Your task to perform on an android device: toggle notification dots Image 0: 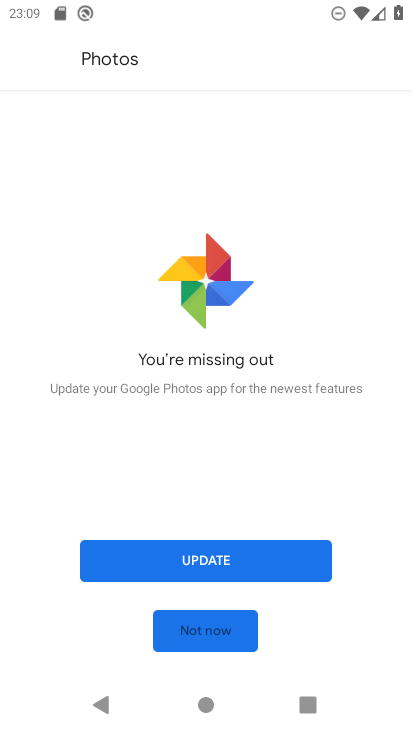
Step 0: press home button
Your task to perform on an android device: toggle notification dots Image 1: 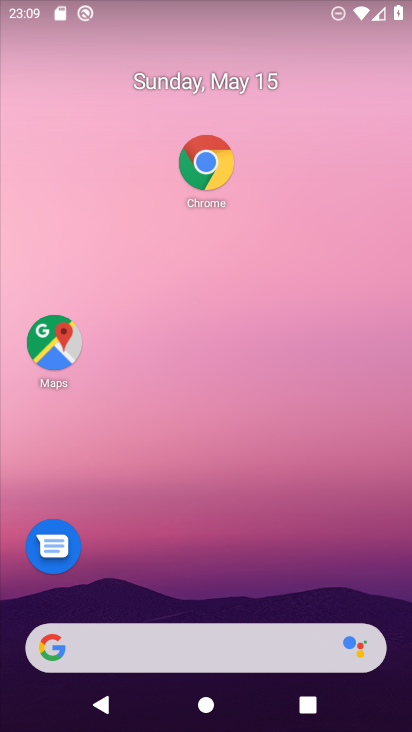
Step 1: drag from (243, 617) to (262, 194)
Your task to perform on an android device: toggle notification dots Image 2: 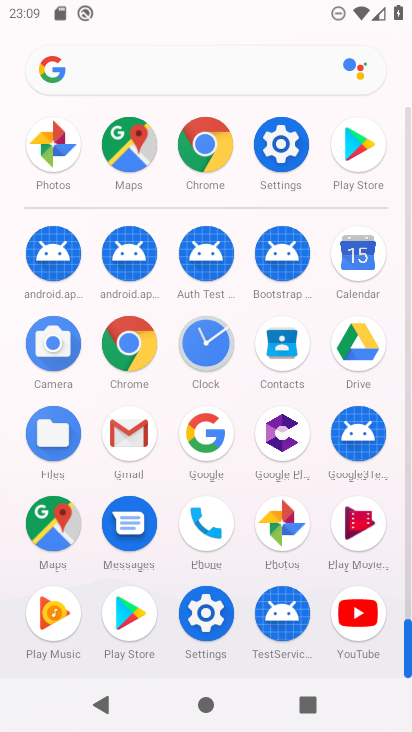
Step 2: click (290, 137)
Your task to perform on an android device: toggle notification dots Image 3: 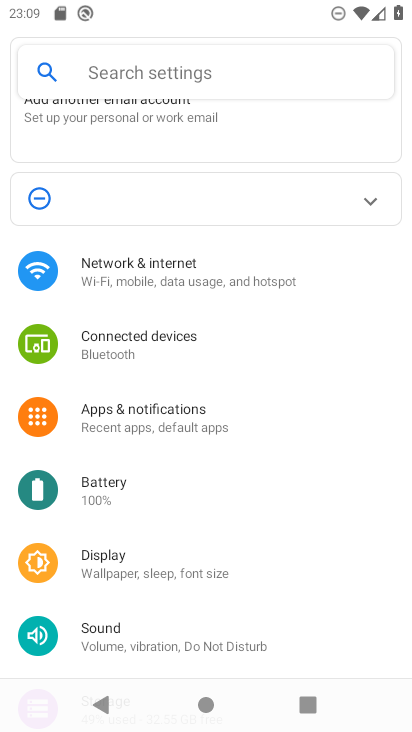
Step 3: click (176, 66)
Your task to perform on an android device: toggle notification dots Image 4: 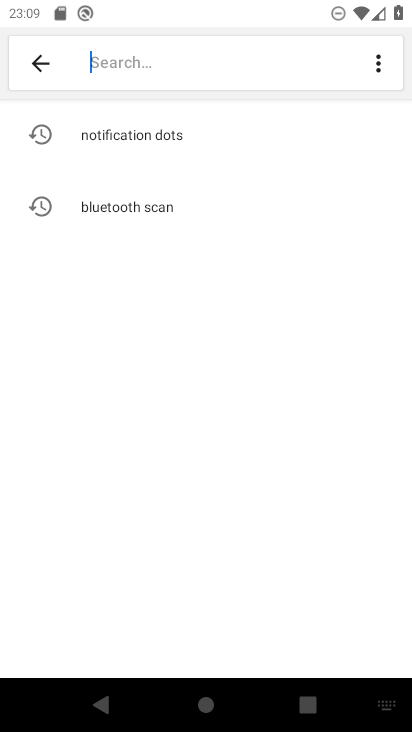
Step 4: click (173, 133)
Your task to perform on an android device: toggle notification dots Image 5: 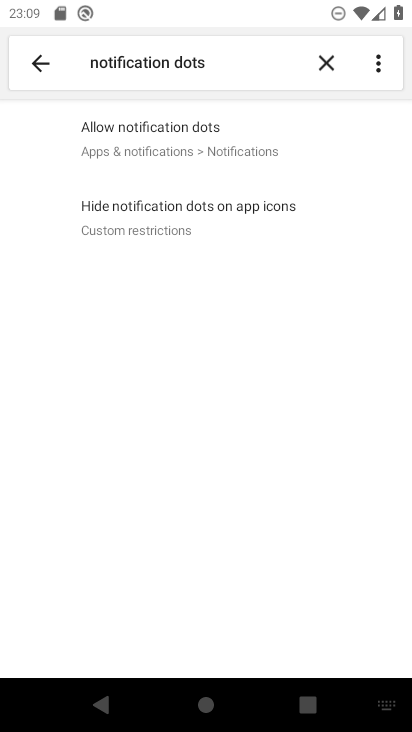
Step 5: click (173, 133)
Your task to perform on an android device: toggle notification dots Image 6: 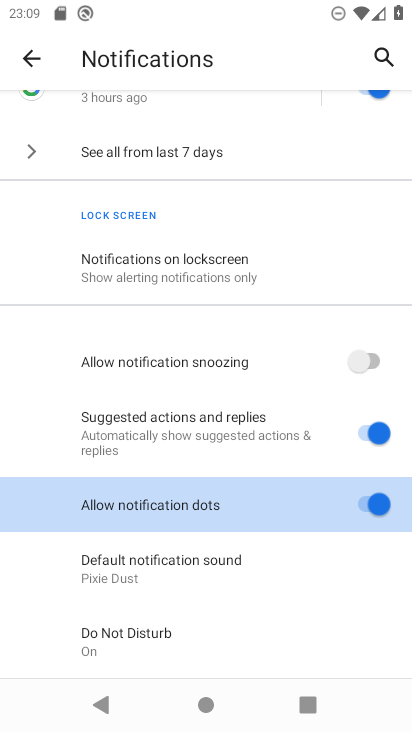
Step 6: click (359, 502)
Your task to perform on an android device: toggle notification dots Image 7: 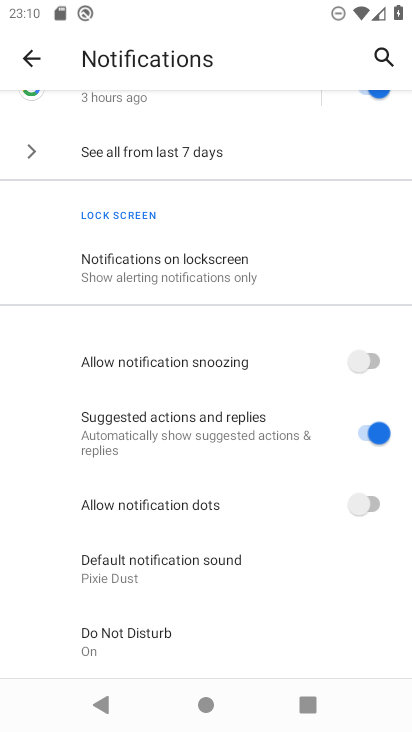
Step 7: task complete